Your task to perform on an android device: Add duracell triple a to the cart on ebay, then select checkout. Image 0: 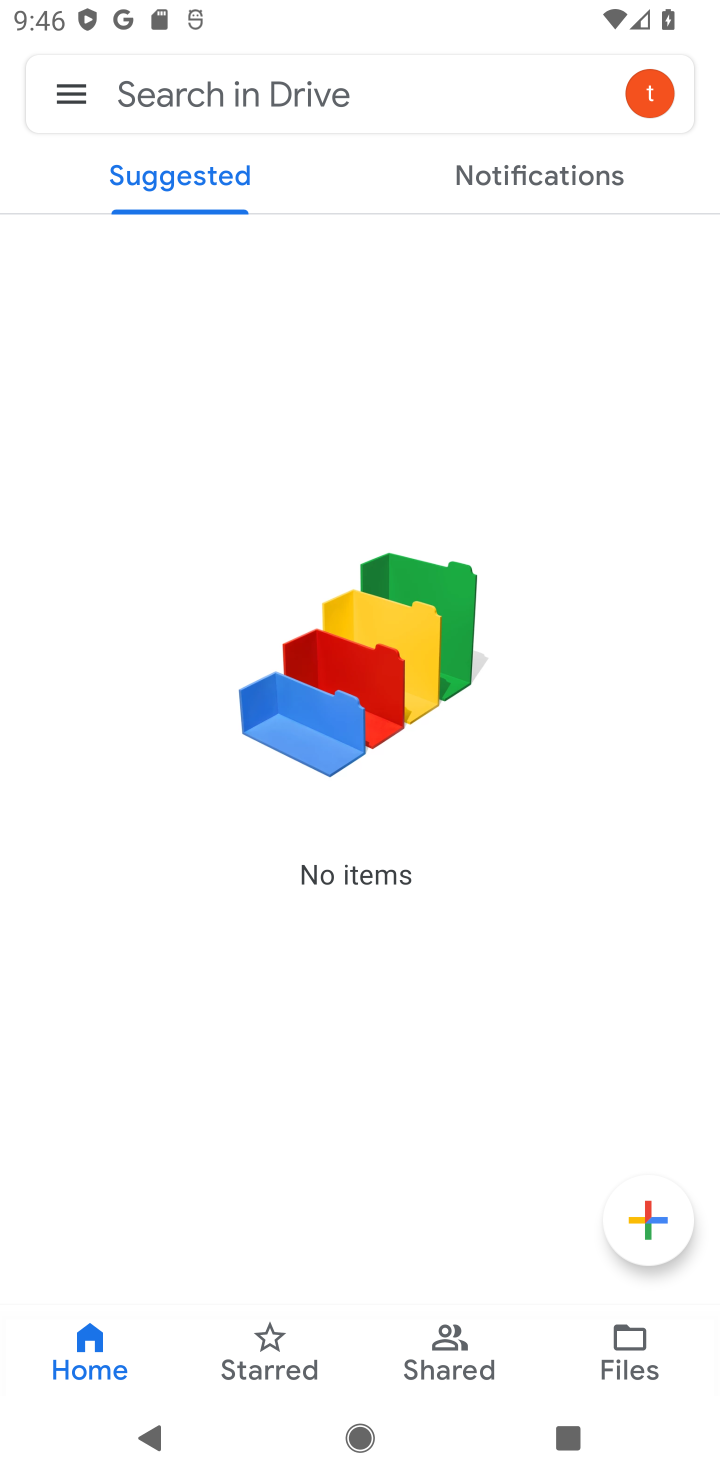
Step 0: press home button
Your task to perform on an android device: Add duracell triple a to the cart on ebay, then select checkout. Image 1: 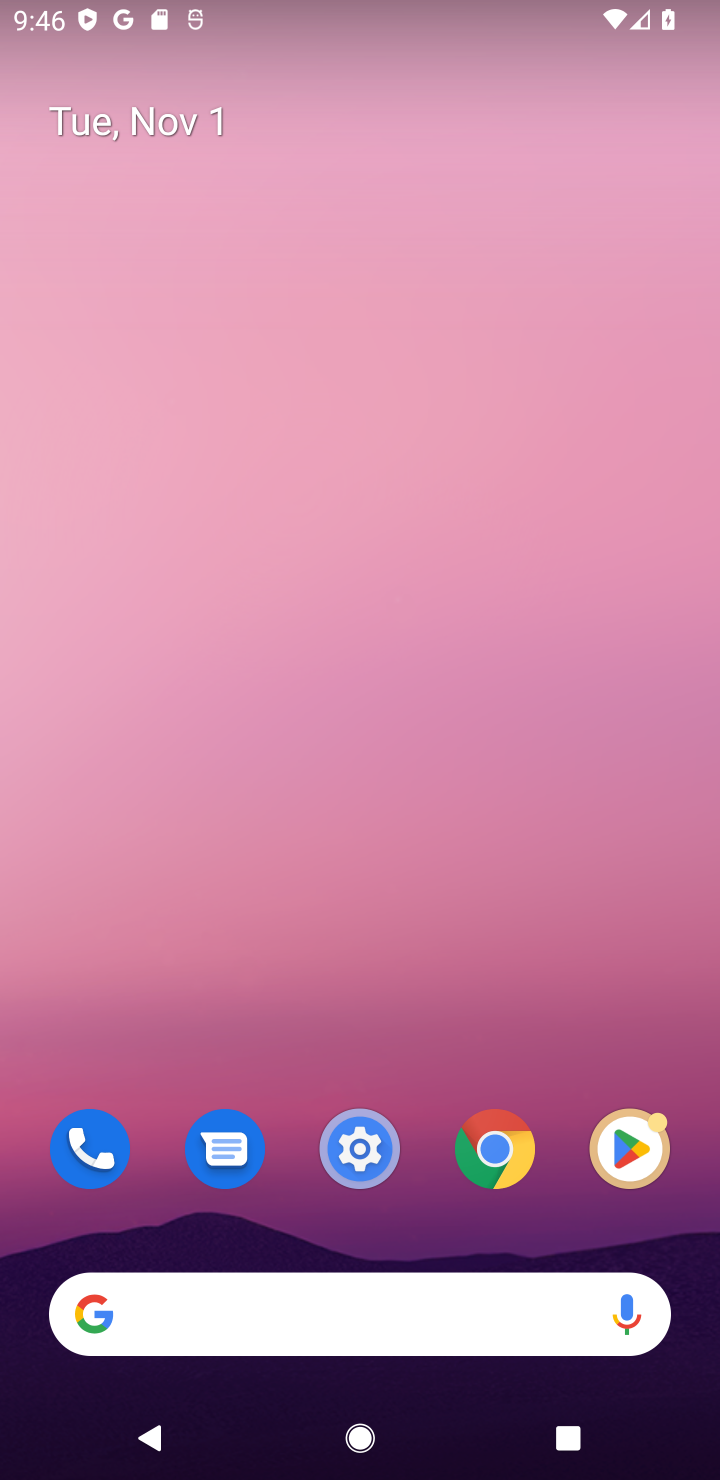
Step 1: click (147, 1312)
Your task to perform on an android device: Add duracell triple a to the cart on ebay, then select checkout. Image 2: 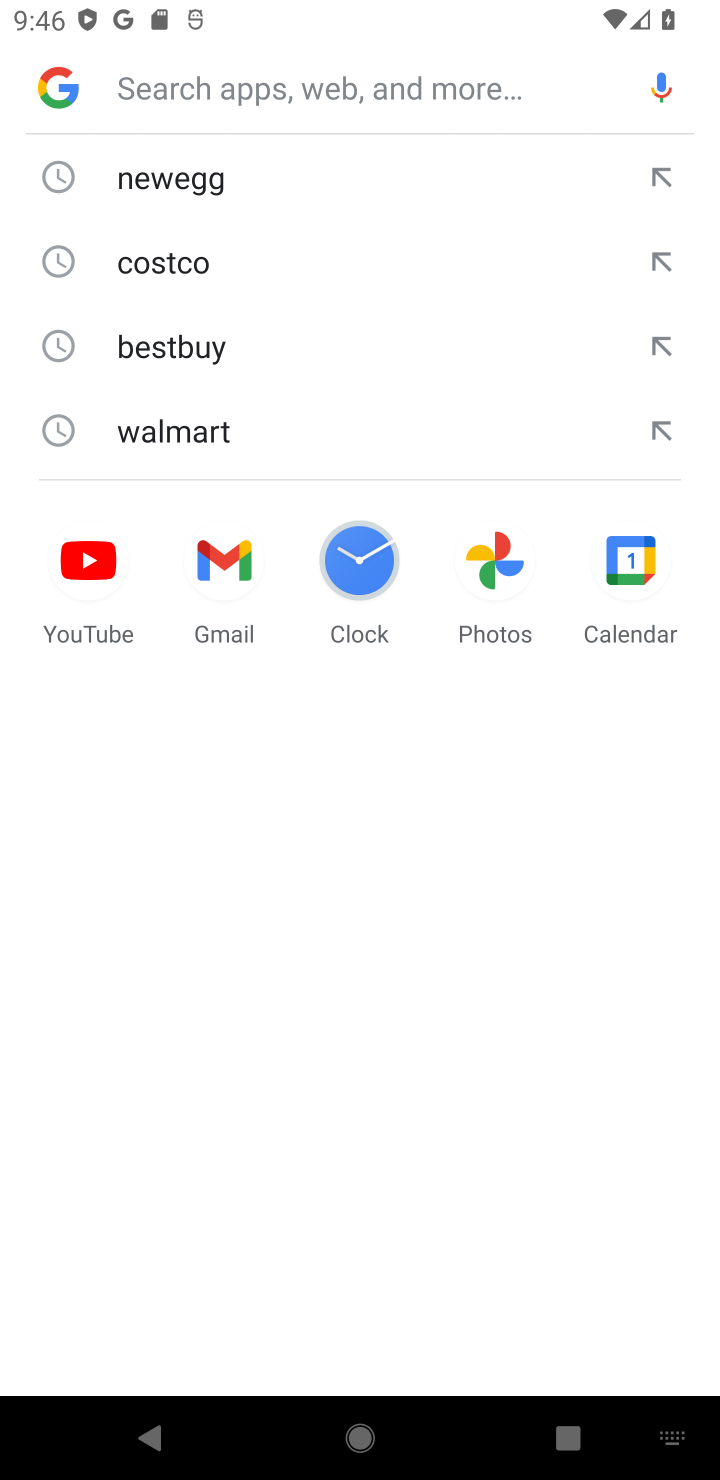
Step 2: type "ebay"
Your task to perform on an android device: Add duracell triple a to the cart on ebay, then select checkout. Image 3: 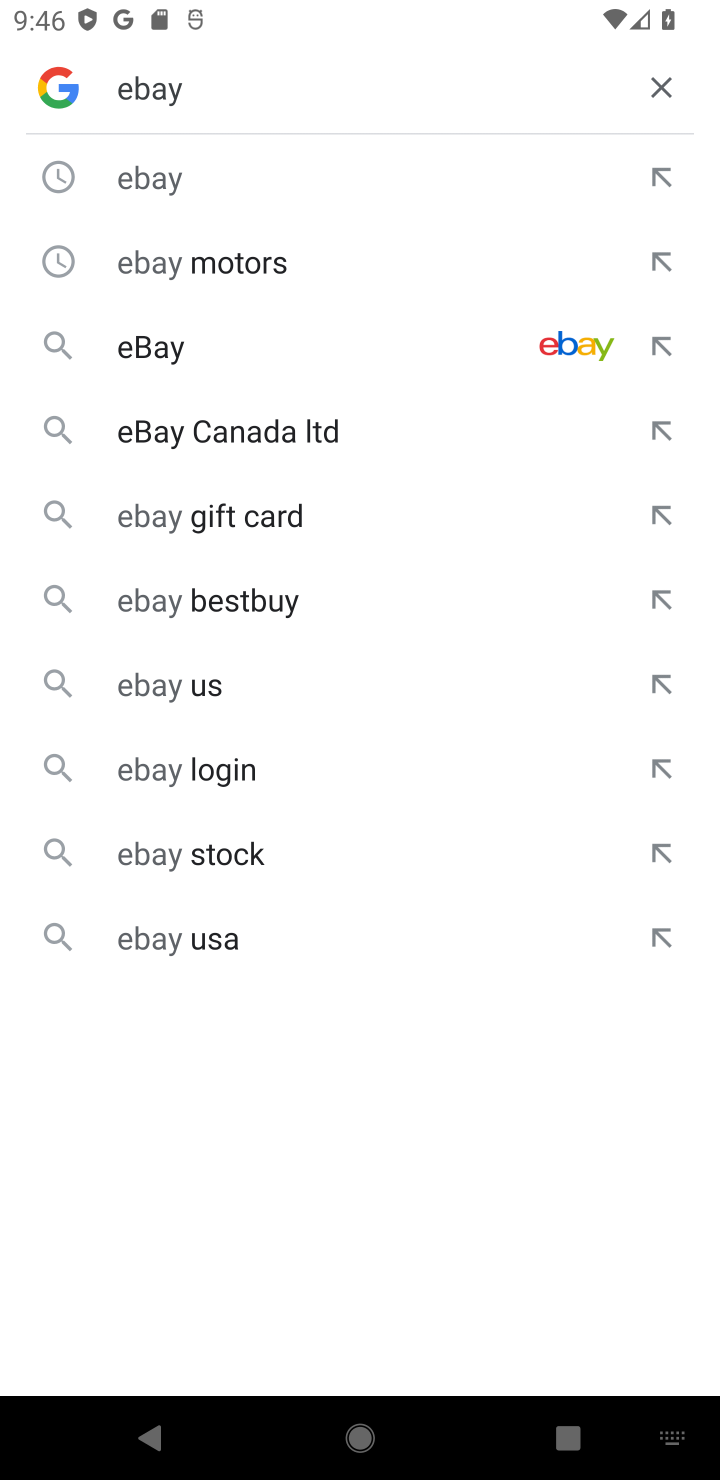
Step 3: press enter
Your task to perform on an android device: Add duracell triple a to the cart on ebay, then select checkout. Image 4: 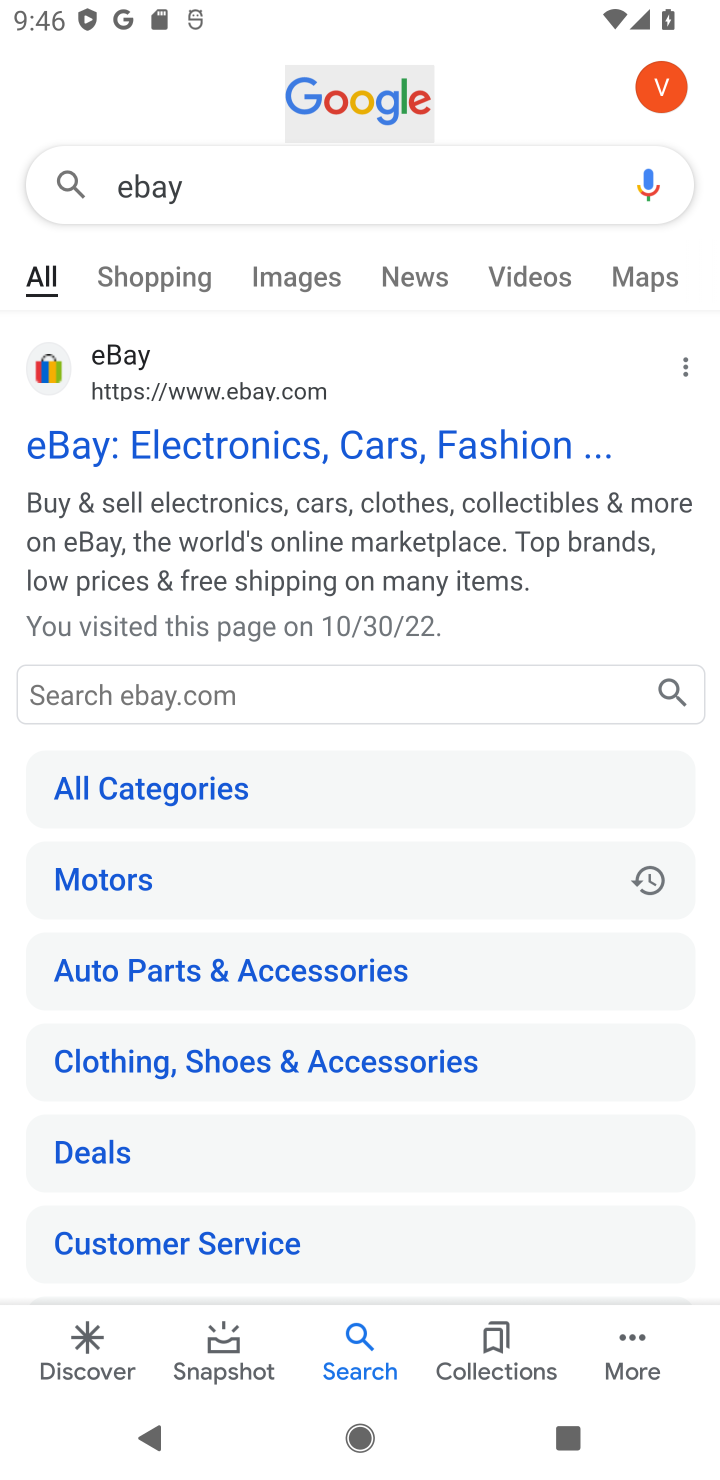
Step 4: click (167, 443)
Your task to perform on an android device: Add duracell triple a to the cart on ebay, then select checkout. Image 5: 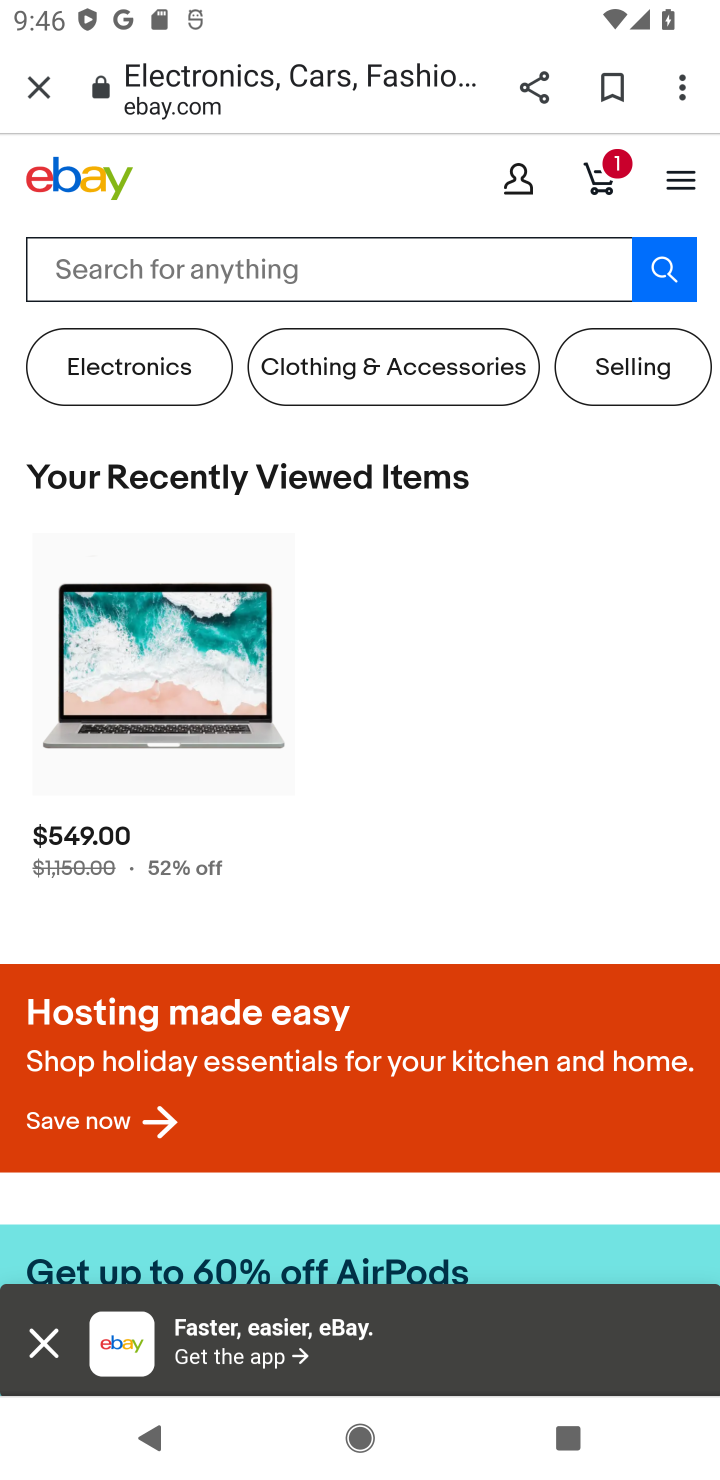
Step 5: click (140, 266)
Your task to perform on an android device: Add duracell triple a to the cart on ebay, then select checkout. Image 6: 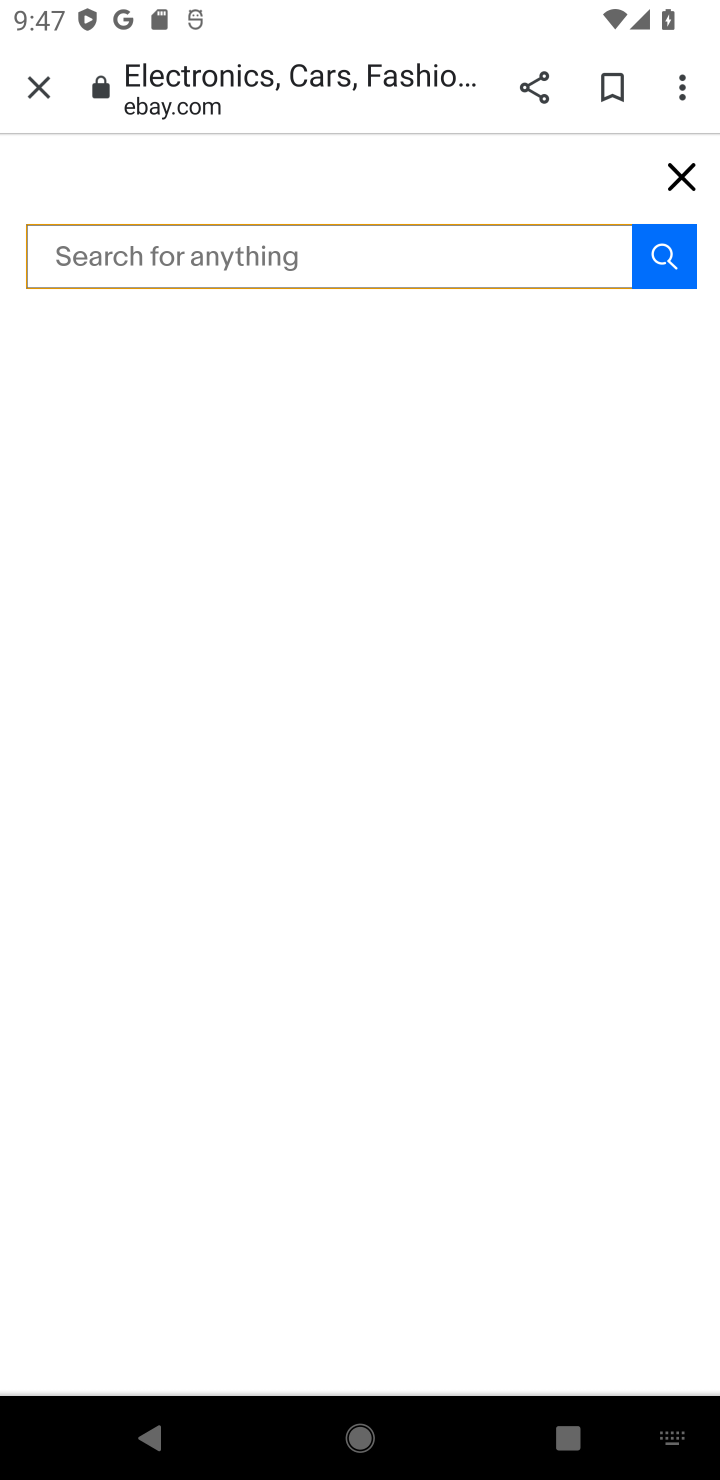
Step 6: type "duracell triple a"
Your task to perform on an android device: Add duracell triple a to the cart on ebay, then select checkout. Image 7: 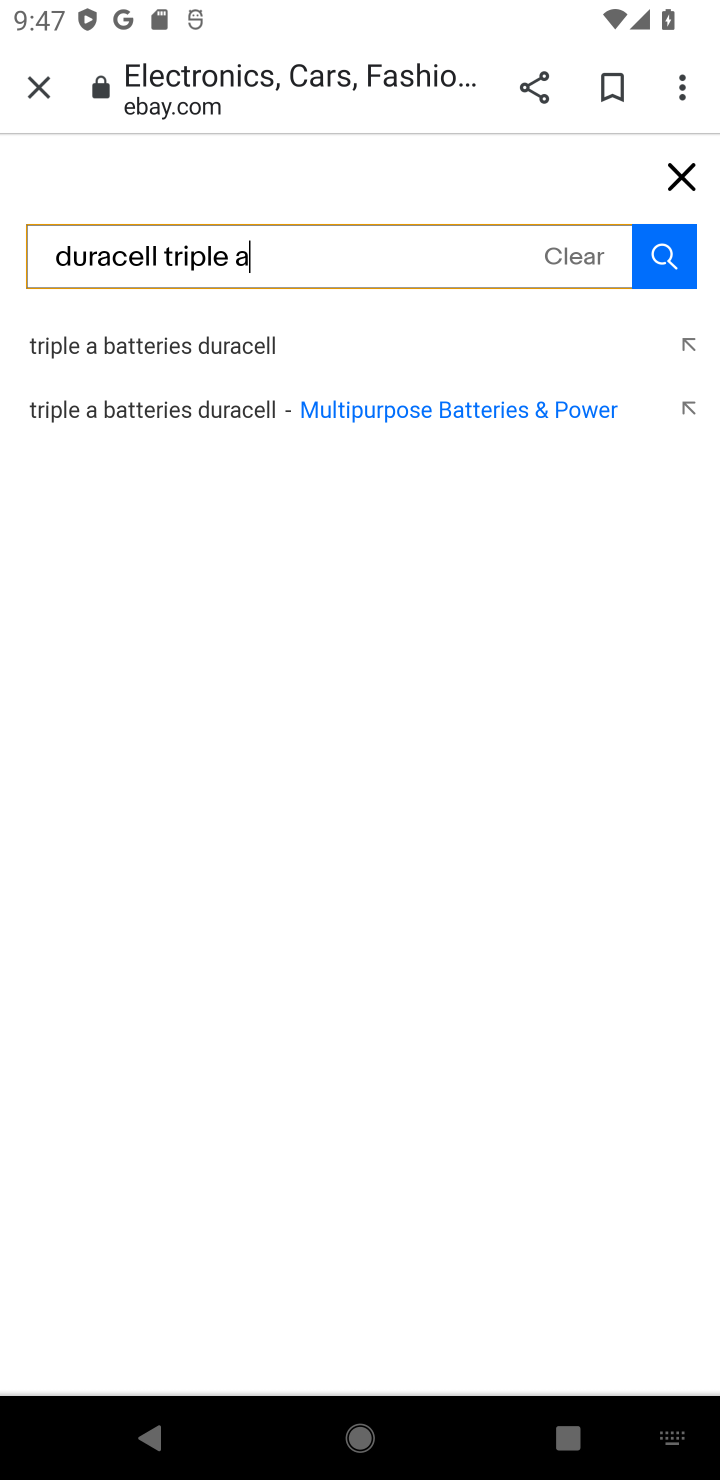
Step 7: click (671, 254)
Your task to perform on an android device: Add duracell triple a to the cart on ebay, then select checkout. Image 8: 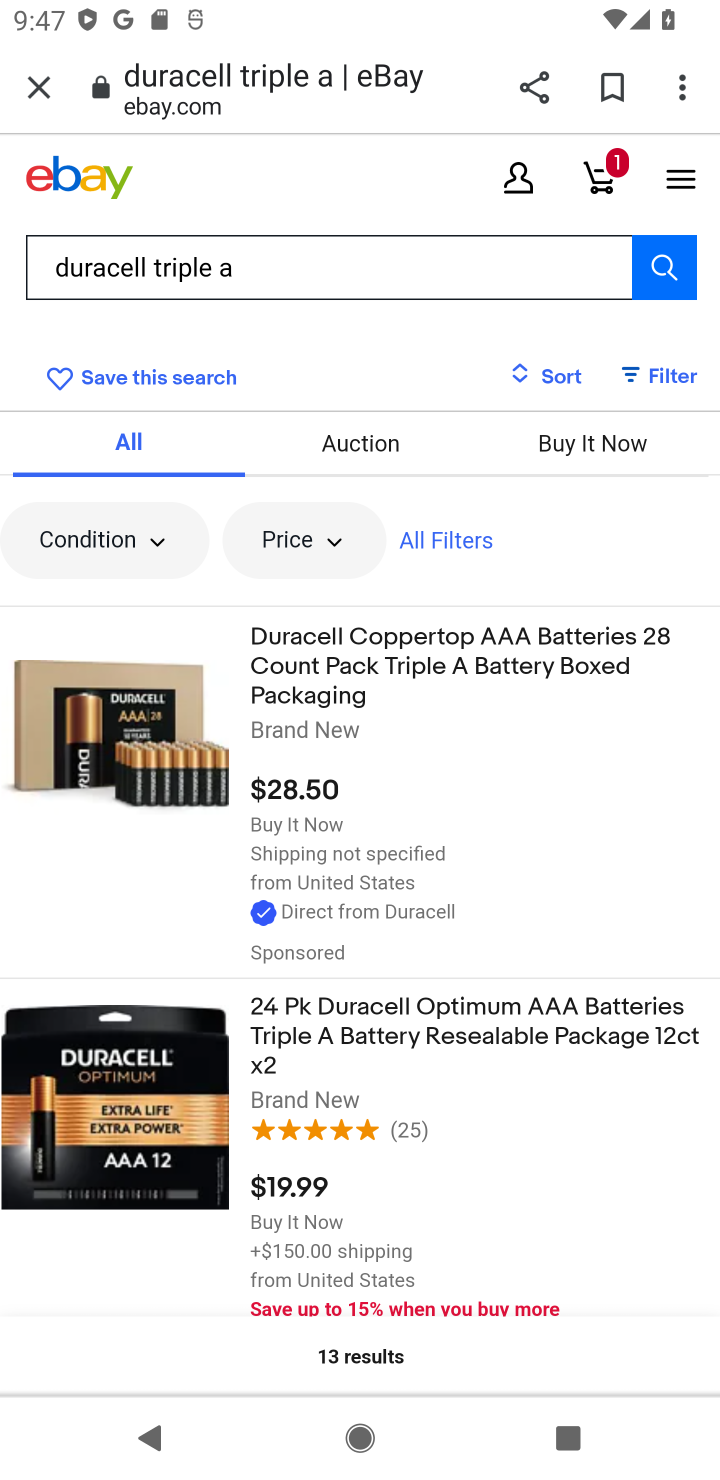
Step 8: click (493, 664)
Your task to perform on an android device: Add duracell triple a to the cart on ebay, then select checkout. Image 9: 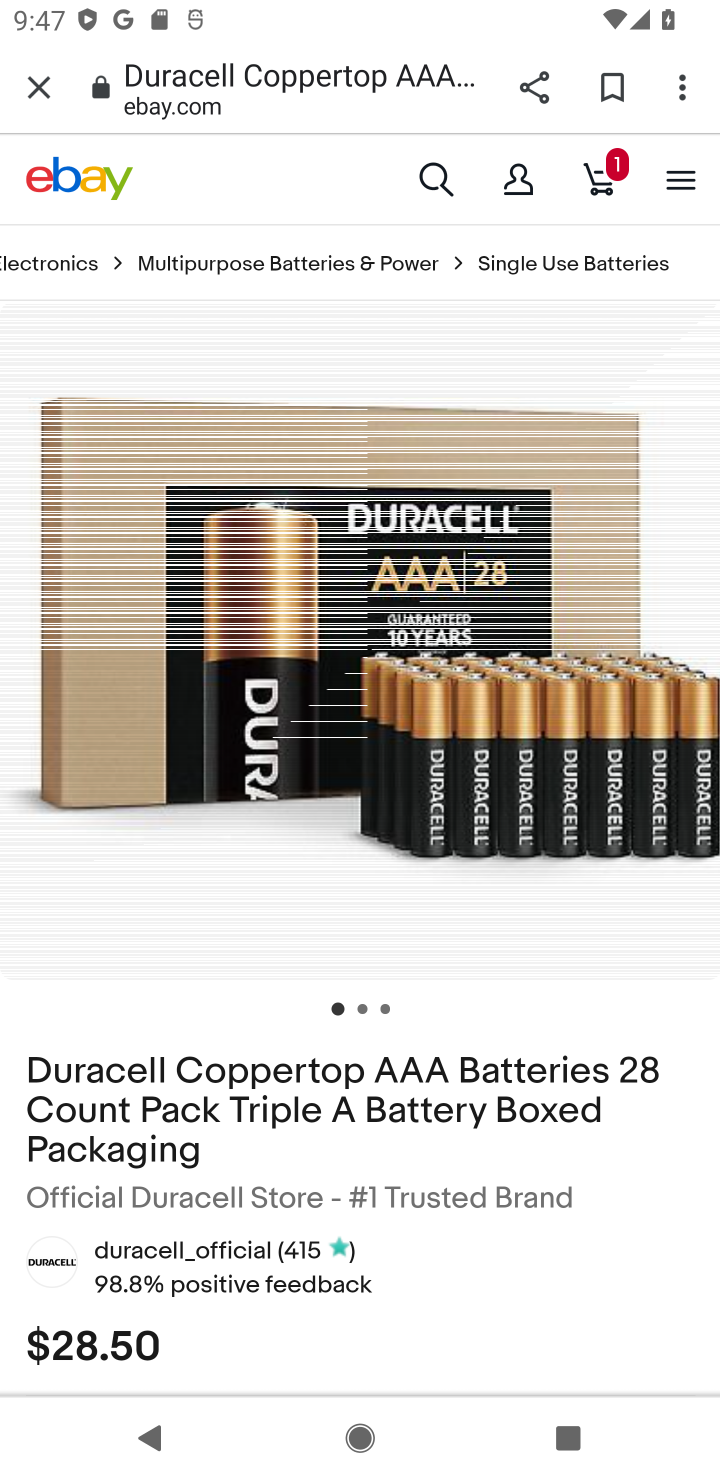
Step 9: drag from (454, 1011) to (454, 494)
Your task to perform on an android device: Add duracell triple a to the cart on ebay, then select checkout. Image 10: 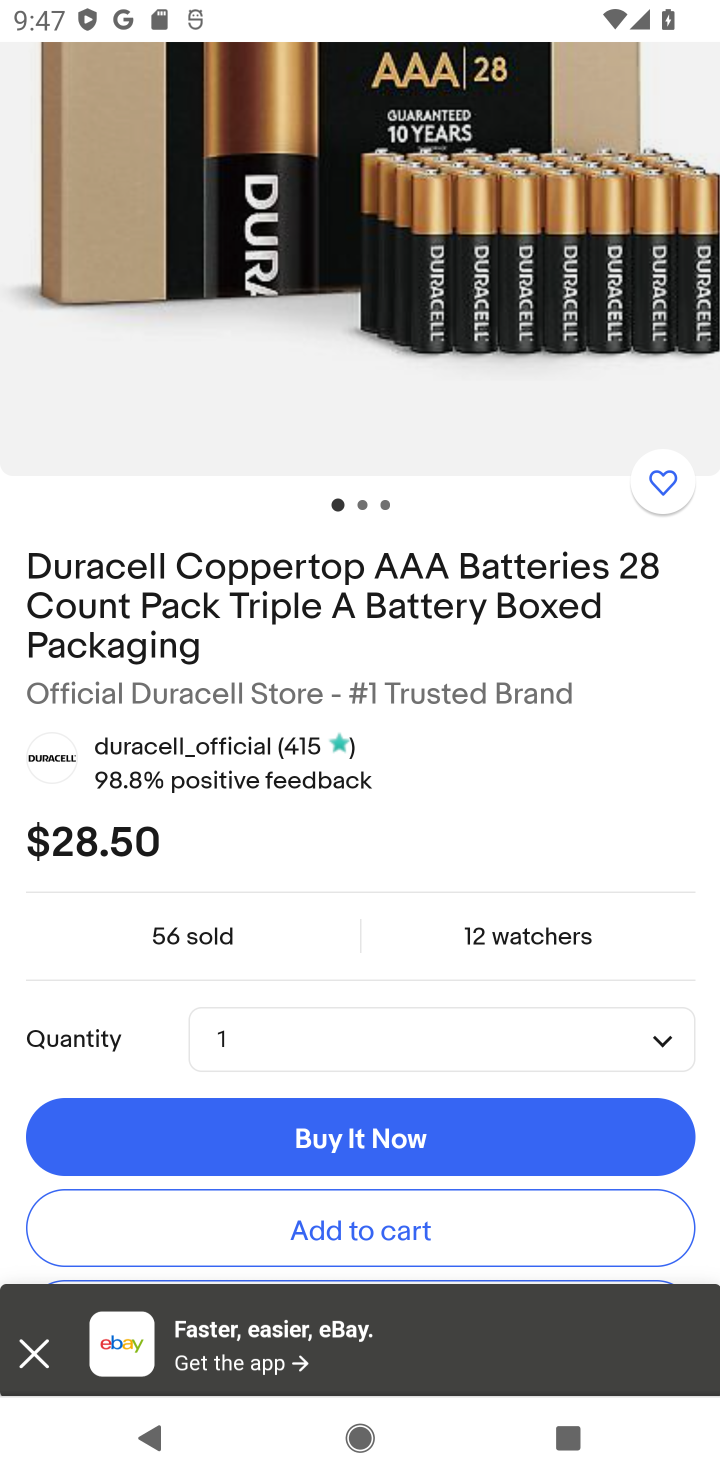
Step 10: drag from (379, 965) to (411, 327)
Your task to perform on an android device: Add duracell triple a to the cart on ebay, then select checkout. Image 11: 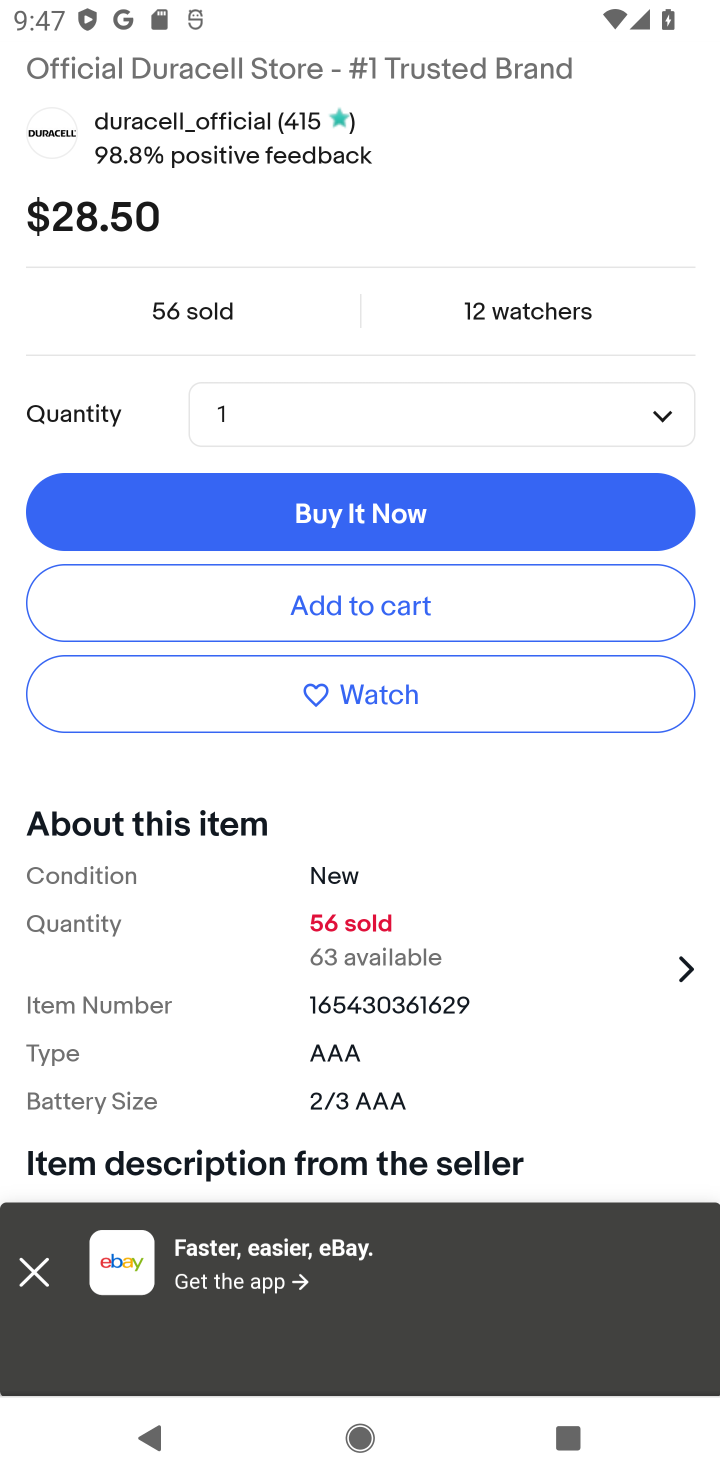
Step 11: click (346, 606)
Your task to perform on an android device: Add duracell triple a to the cart on ebay, then select checkout. Image 12: 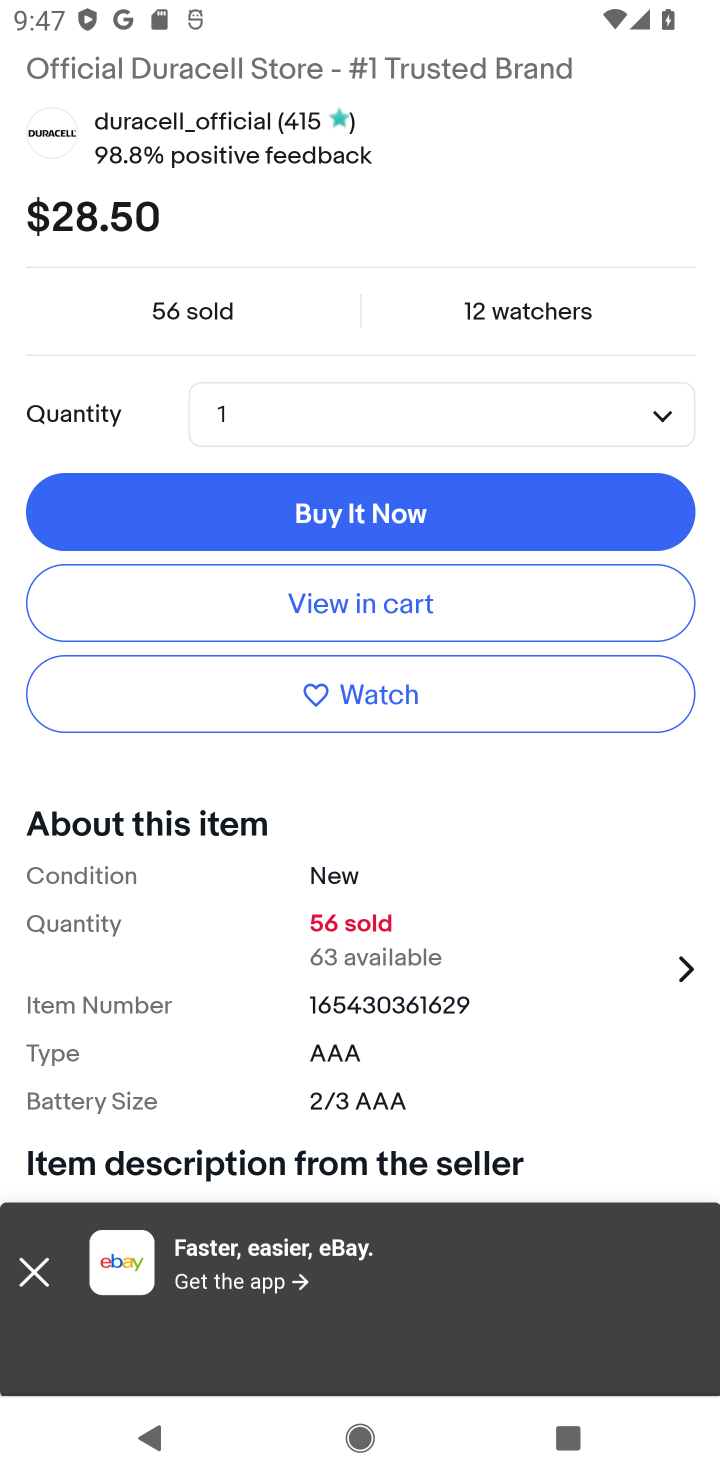
Step 12: click (346, 606)
Your task to perform on an android device: Add duracell triple a to the cart on ebay, then select checkout. Image 13: 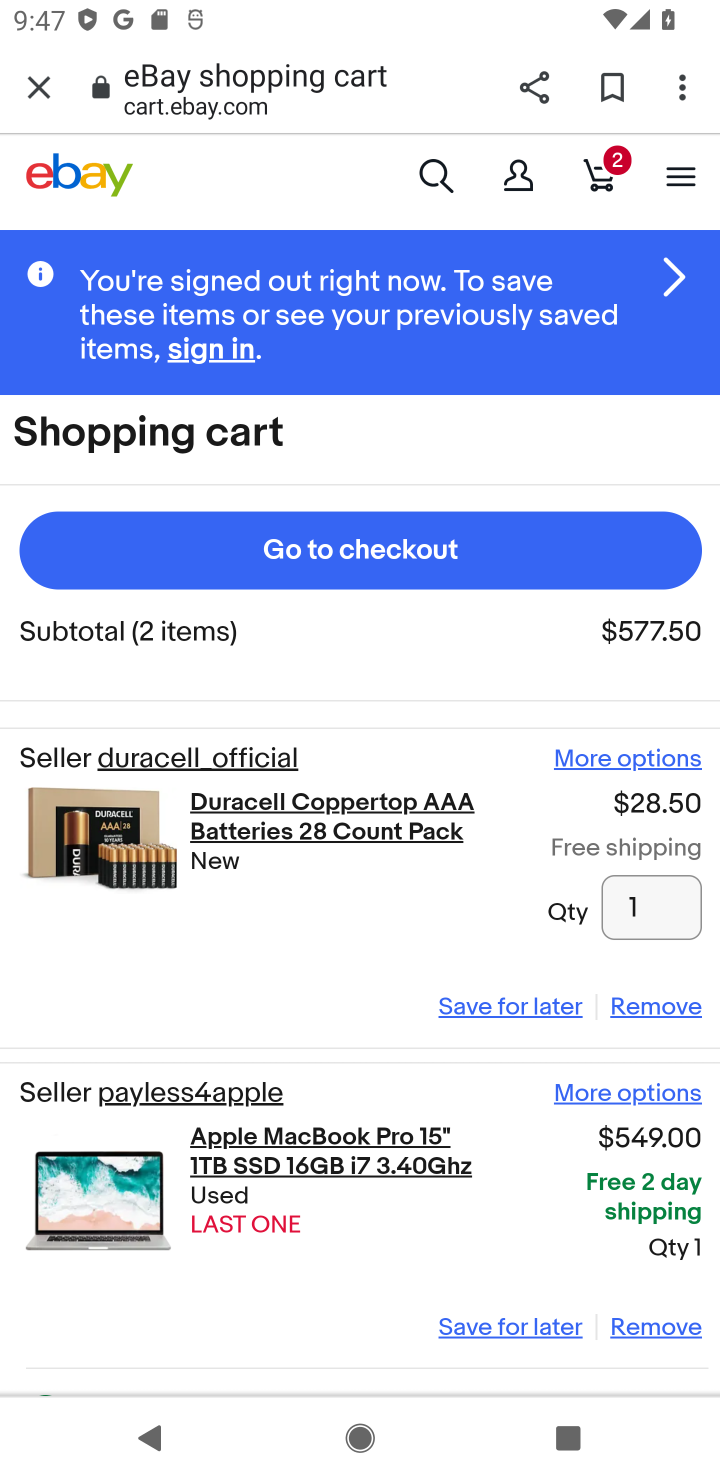
Step 13: click (364, 558)
Your task to perform on an android device: Add duracell triple a to the cart on ebay, then select checkout. Image 14: 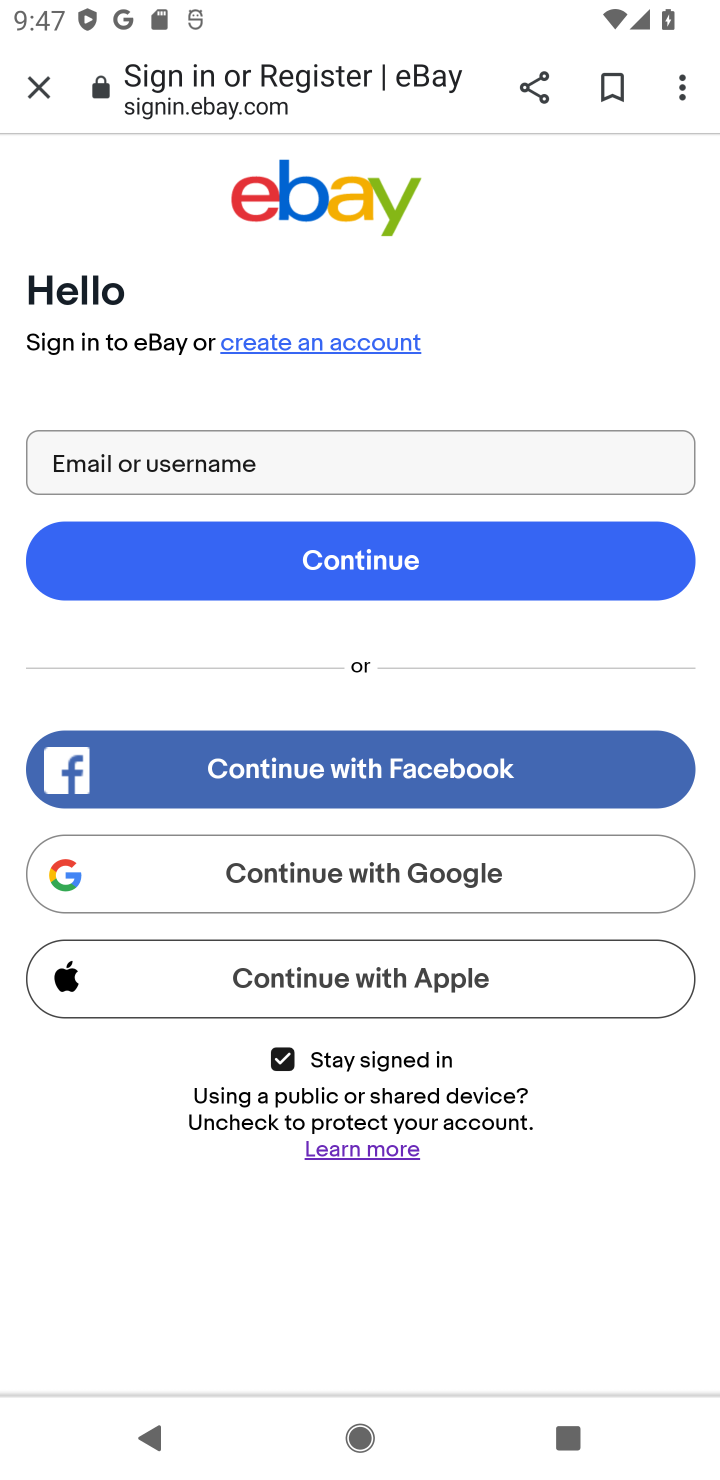
Step 14: task complete